Your task to perform on an android device: toggle show notifications on the lock screen Image 0: 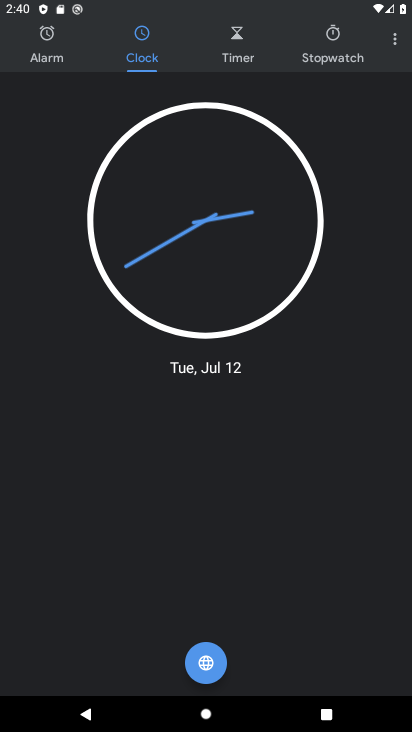
Step 0: press home button
Your task to perform on an android device: toggle show notifications on the lock screen Image 1: 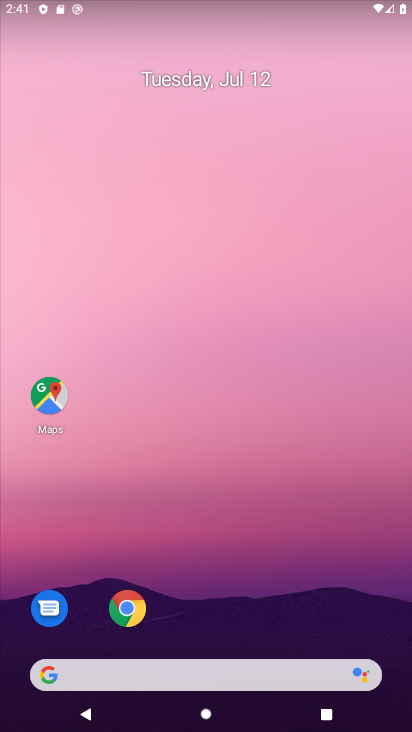
Step 1: drag from (314, 531) to (250, 0)
Your task to perform on an android device: toggle show notifications on the lock screen Image 2: 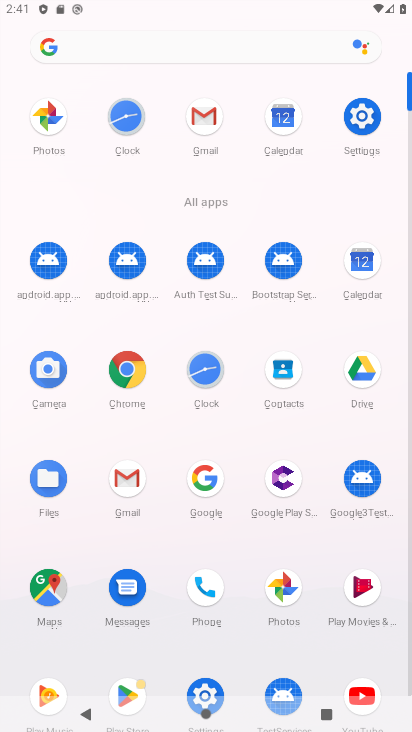
Step 2: click (371, 101)
Your task to perform on an android device: toggle show notifications on the lock screen Image 3: 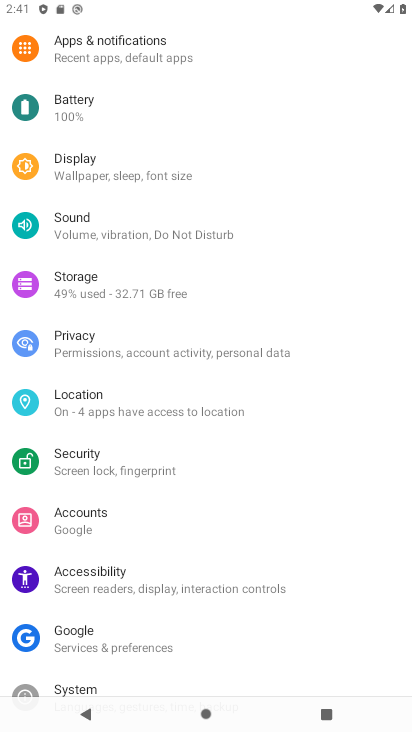
Step 3: click (167, 45)
Your task to perform on an android device: toggle show notifications on the lock screen Image 4: 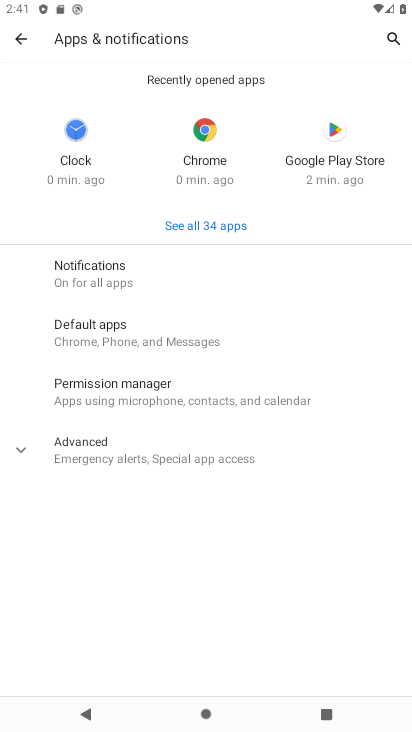
Step 4: click (133, 259)
Your task to perform on an android device: toggle show notifications on the lock screen Image 5: 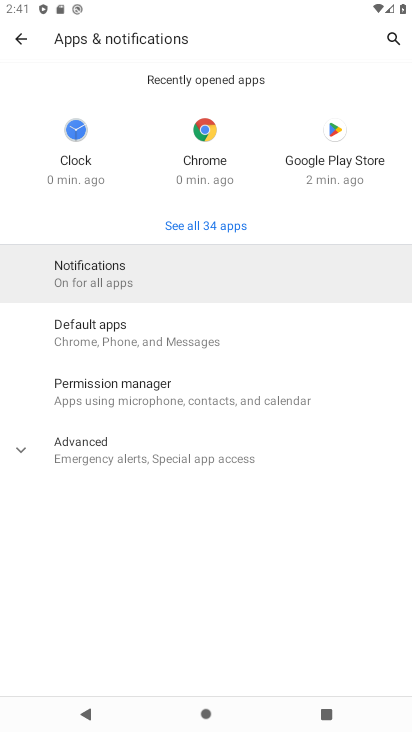
Step 5: click (133, 259)
Your task to perform on an android device: toggle show notifications on the lock screen Image 6: 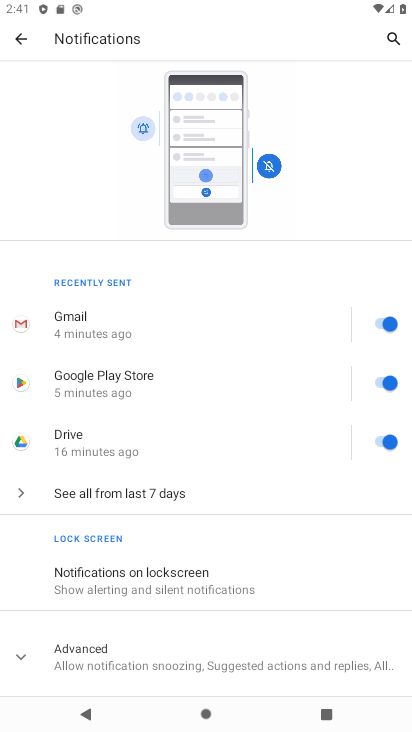
Step 6: click (151, 590)
Your task to perform on an android device: toggle show notifications on the lock screen Image 7: 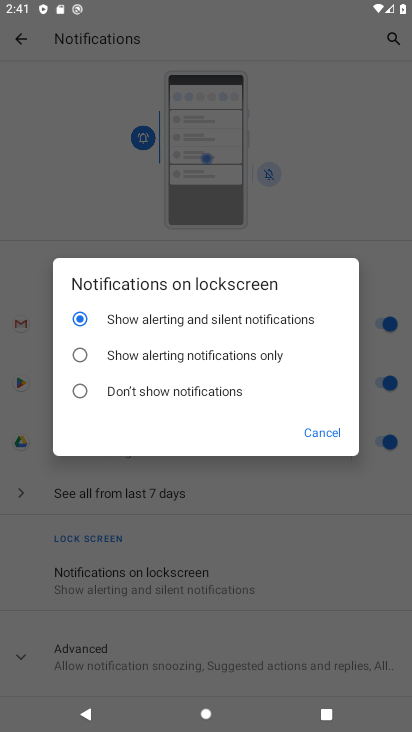
Step 7: click (171, 361)
Your task to perform on an android device: toggle show notifications on the lock screen Image 8: 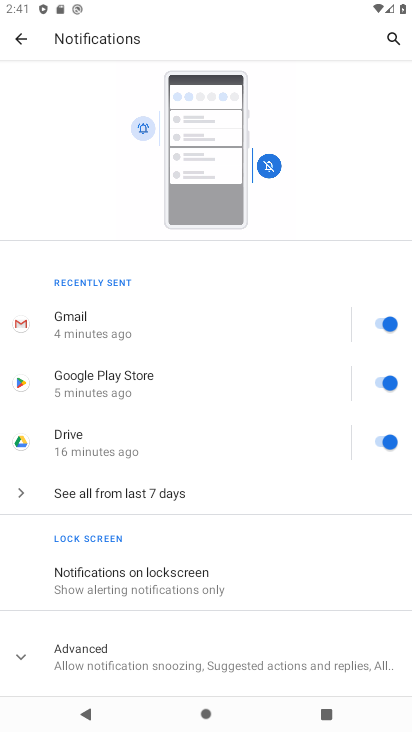
Step 8: task complete